Your task to perform on an android device: add a contact Image 0: 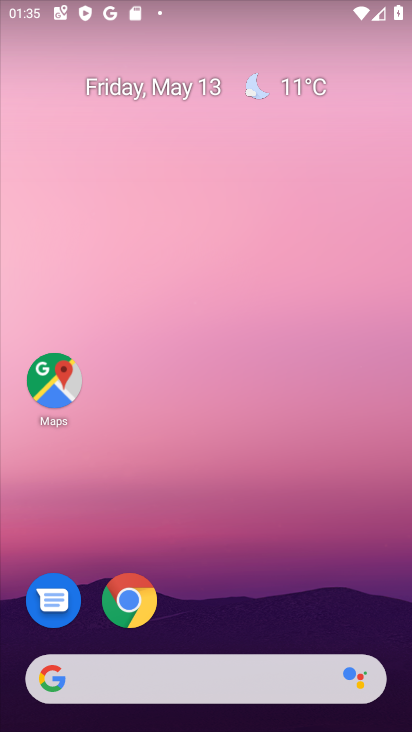
Step 0: click (75, 660)
Your task to perform on an android device: add a contact Image 1: 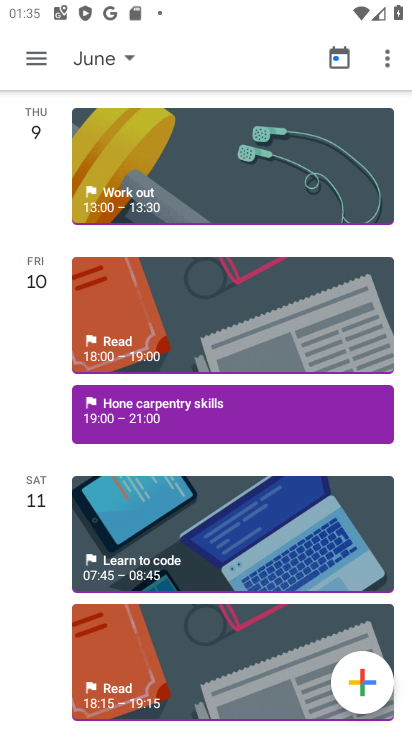
Step 1: press home button
Your task to perform on an android device: add a contact Image 2: 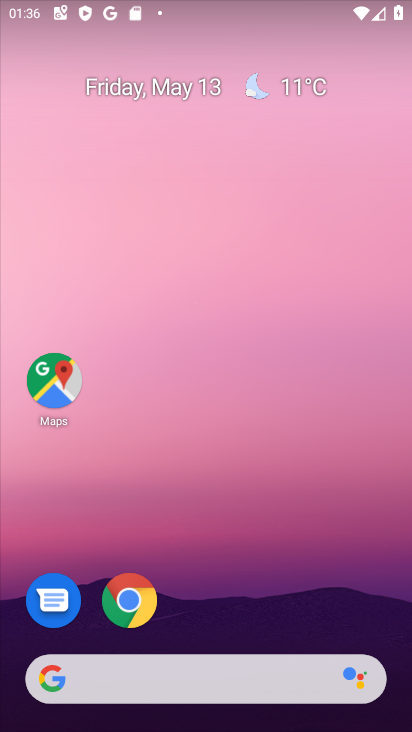
Step 2: drag from (196, 645) to (328, 159)
Your task to perform on an android device: add a contact Image 3: 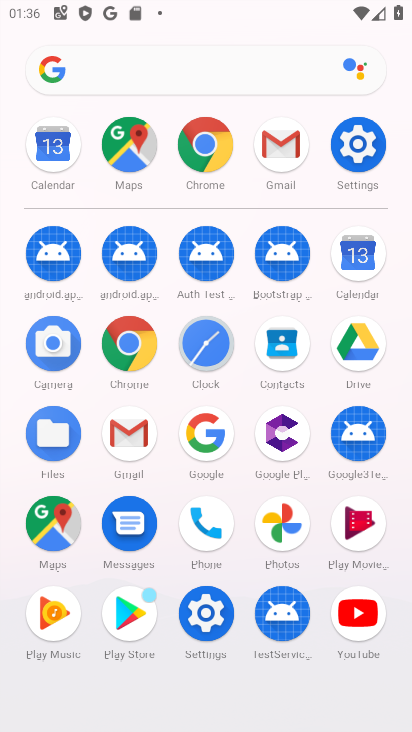
Step 3: click (277, 349)
Your task to perform on an android device: add a contact Image 4: 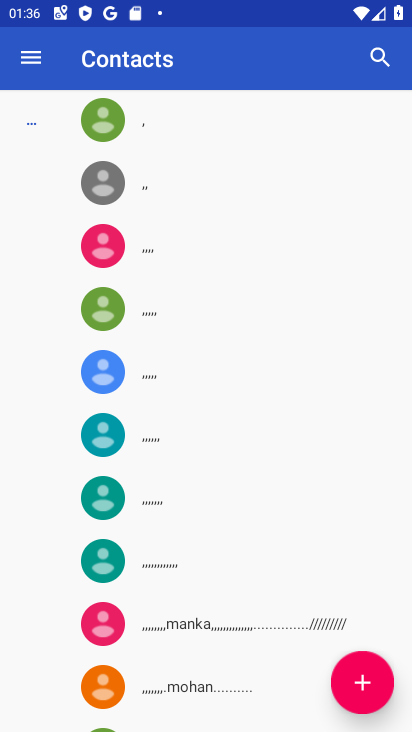
Step 4: drag from (192, 564) to (316, 156)
Your task to perform on an android device: add a contact Image 5: 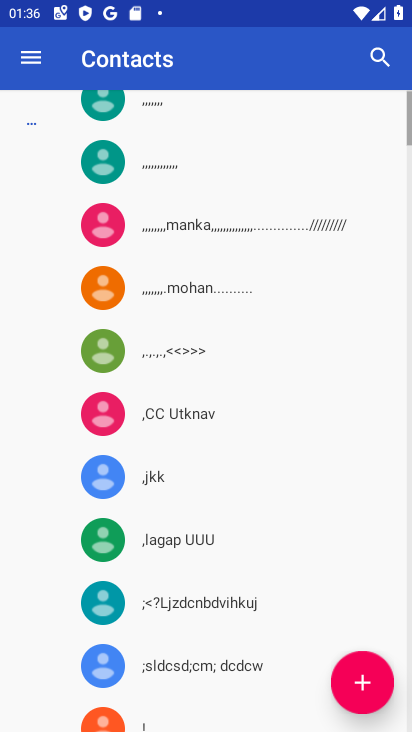
Step 5: click (353, 689)
Your task to perform on an android device: add a contact Image 6: 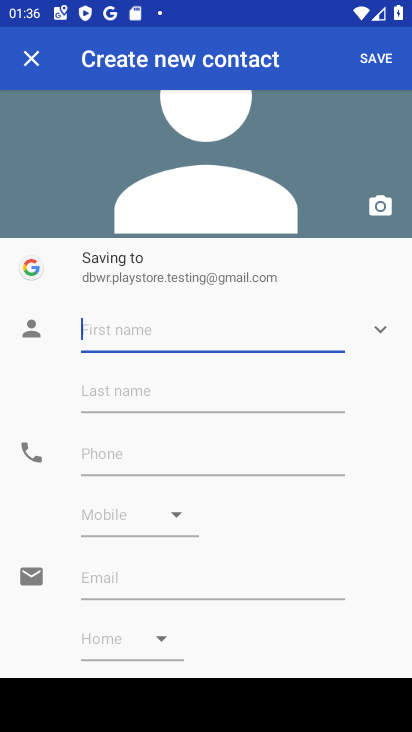
Step 6: drag from (258, 595) to (273, 292)
Your task to perform on an android device: add a contact Image 7: 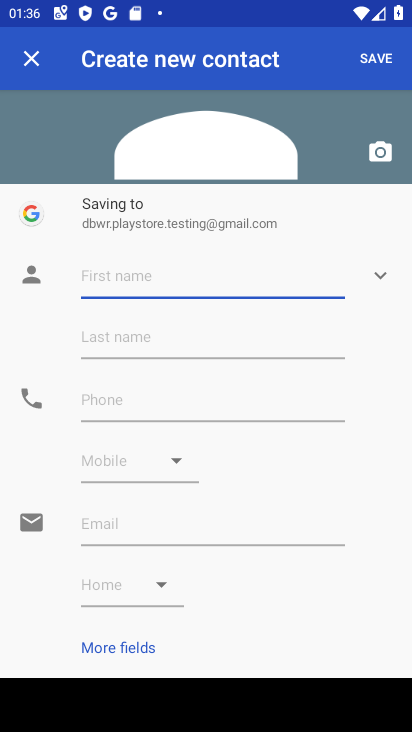
Step 7: type "mjkl"
Your task to perform on an android device: add a contact Image 8: 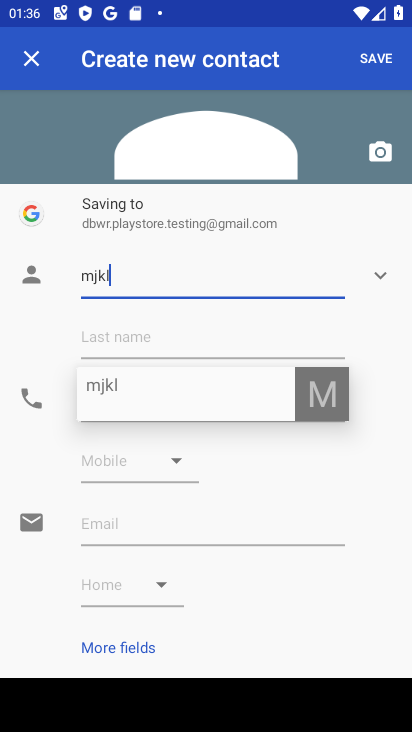
Step 8: task complete